Your task to perform on an android device: allow cookies in the chrome app Image 0: 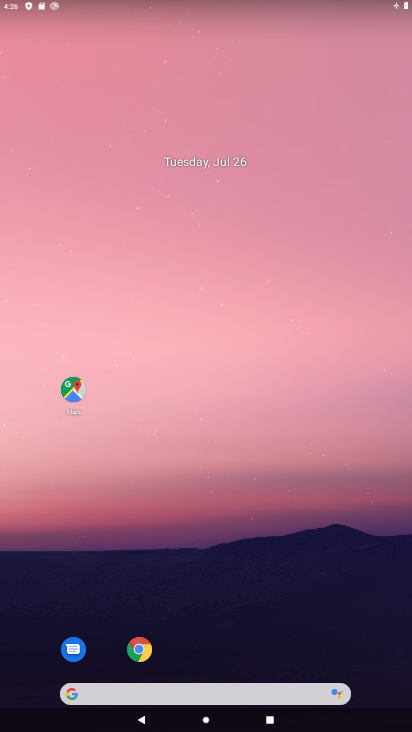
Step 0: click (132, 657)
Your task to perform on an android device: allow cookies in the chrome app Image 1: 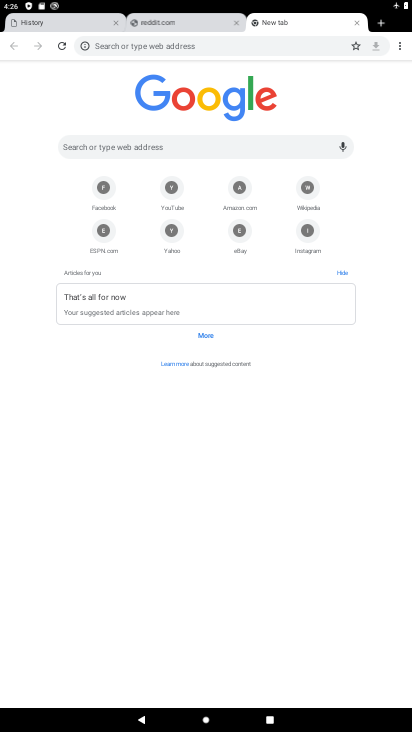
Step 1: click (398, 49)
Your task to perform on an android device: allow cookies in the chrome app Image 2: 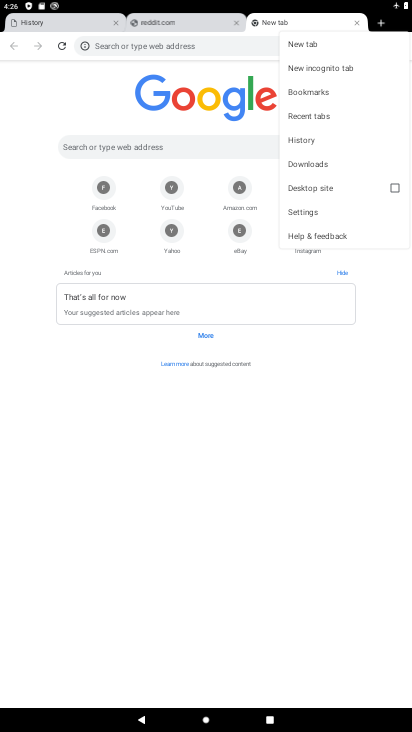
Step 2: click (321, 212)
Your task to perform on an android device: allow cookies in the chrome app Image 3: 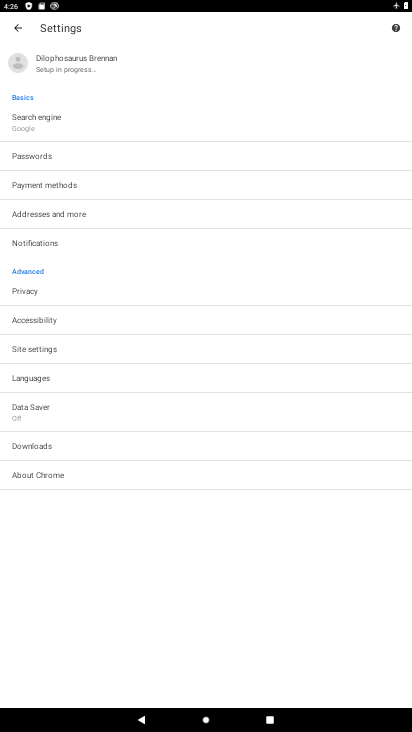
Step 3: click (36, 353)
Your task to perform on an android device: allow cookies in the chrome app Image 4: 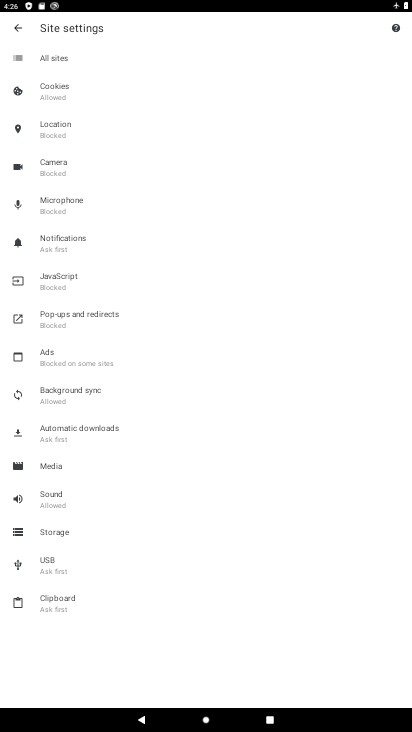
Step 4: click (49, 89)
Your task to perform on an android device: allow cookies in the chrome app Image 5: 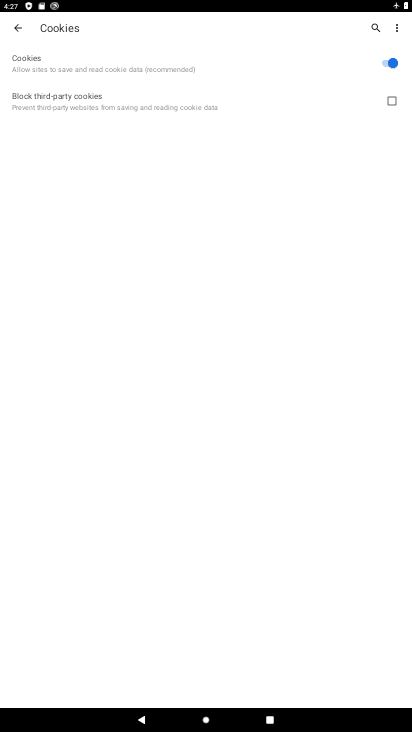
Step 5: task complete